Your task to perform on an android device: Search for asus zenbook on walmart.com, select the first entry, and add it to the cart. Image 0: 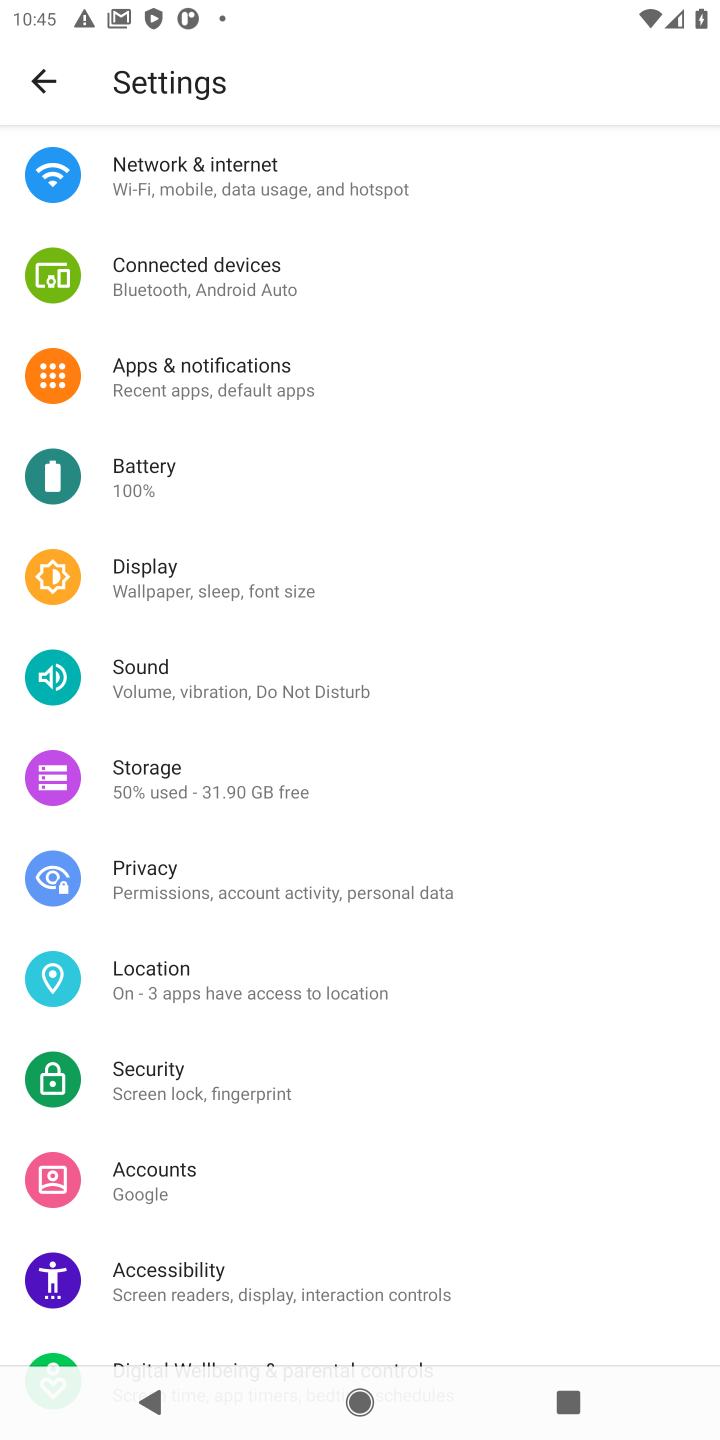
Step 0: press home button
Your task to perform on an android device: Search for asus zenbook on walmart.com, select the first entry, and add it to the cart. Image 1: 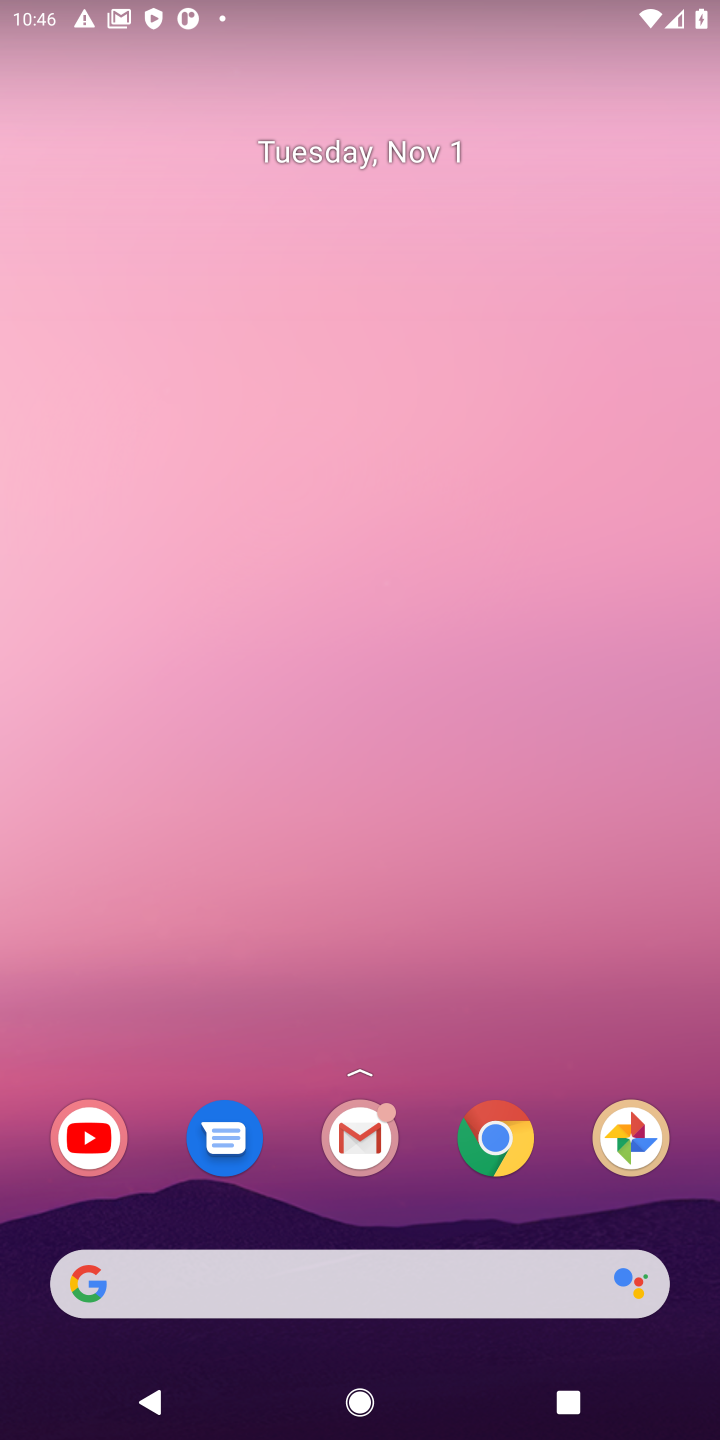
Step 1: click (492, 1136)
Your task to perform on an android device: Search for asus zenbook on walmart.com, select the first entry, and add it to the cart. Image 2: 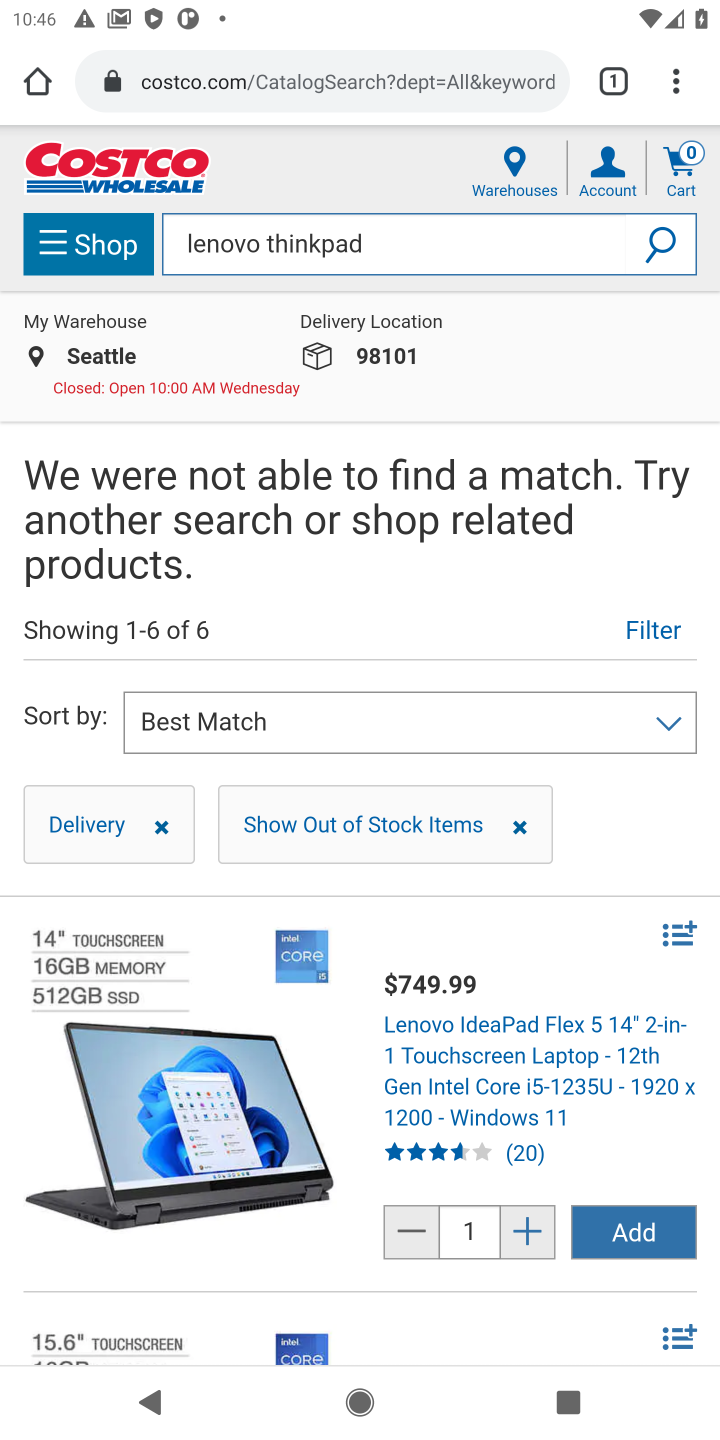
Step 2: click (239, 88)
Your task to perform on an android device: Search for asus zenbook on walmart.com, select the first entry, and add it to the cart. Image 3: 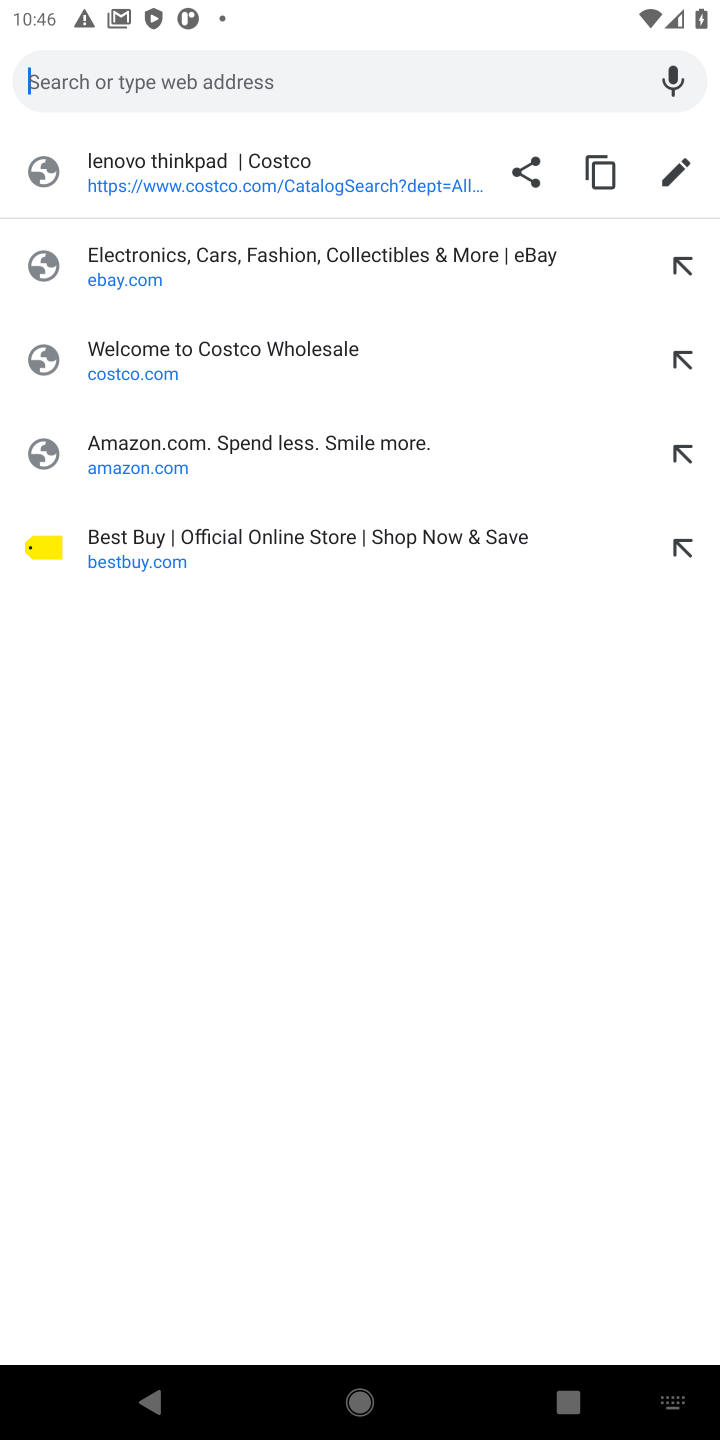
Step 3: type "walmart.com"
Your task to perform on an android device: Search for asus zenbook on walmart.com, select the first entry, and add it to the cart. Image 4: 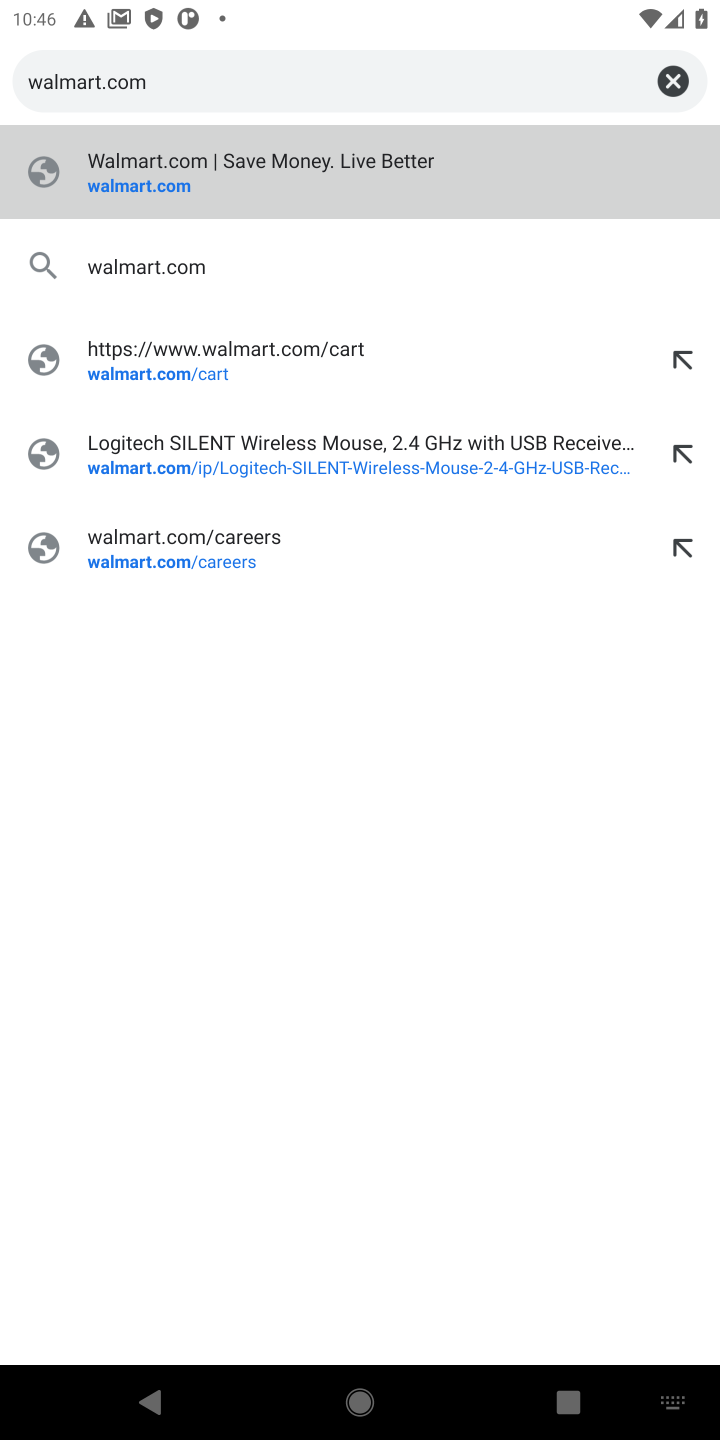
Step 4: click (126, 198)
Your task to perform on an android device: Search for asus zenbook on walmart.com, select the first entry, and add it to the cart. Image 5: 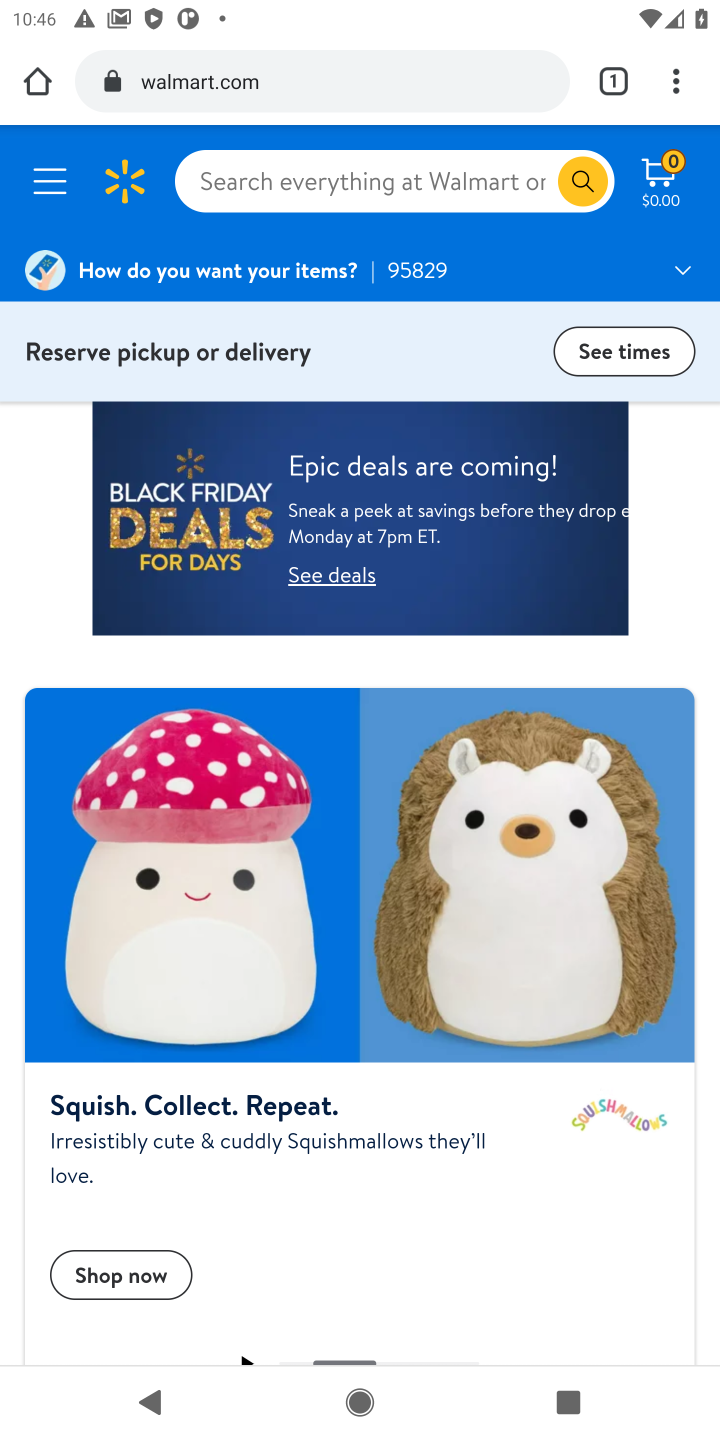
Step 5: click (310, 185)
Your task to perform on an android device: Search for asus zenbook on walmart.com, select the first entry, and add it to the cart. Image 6: 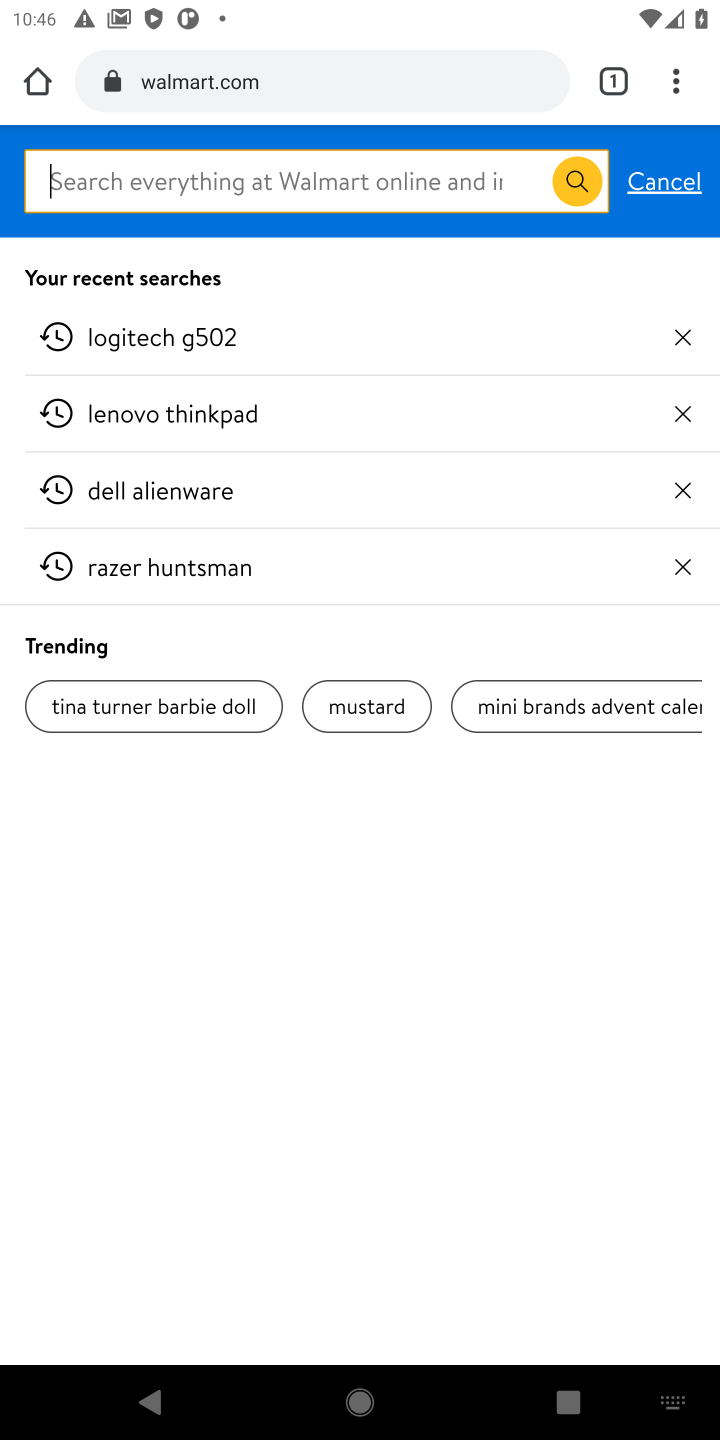
Step 6: type " asus zenbook"
Your task to perform on an android device: Search for asus zenbook on walmart.com, select the first entry, and add it to the cart. Image 7: 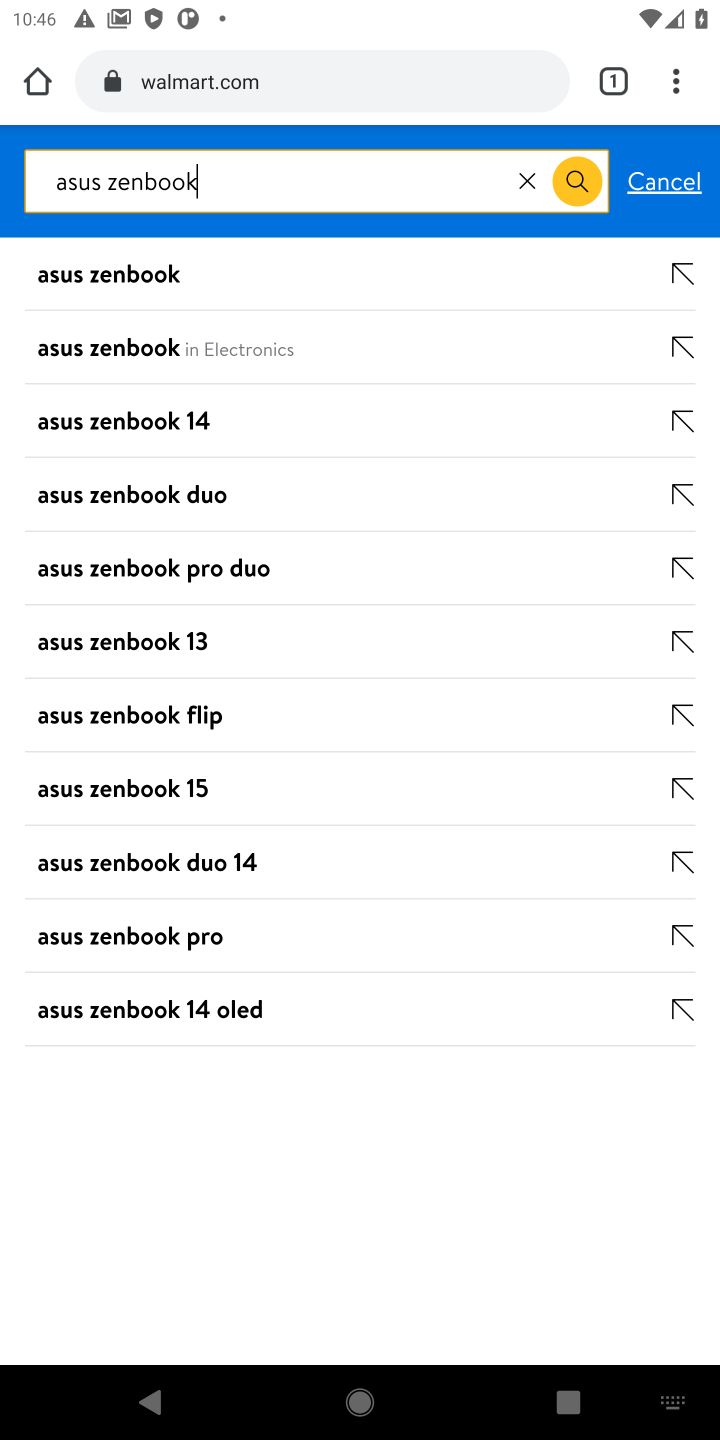
Step 7: click (125, 269)
Your task to perform on an android device: Search for asus zenbook on walmart.com, select the first entry, and add it to the cart. Image 8: 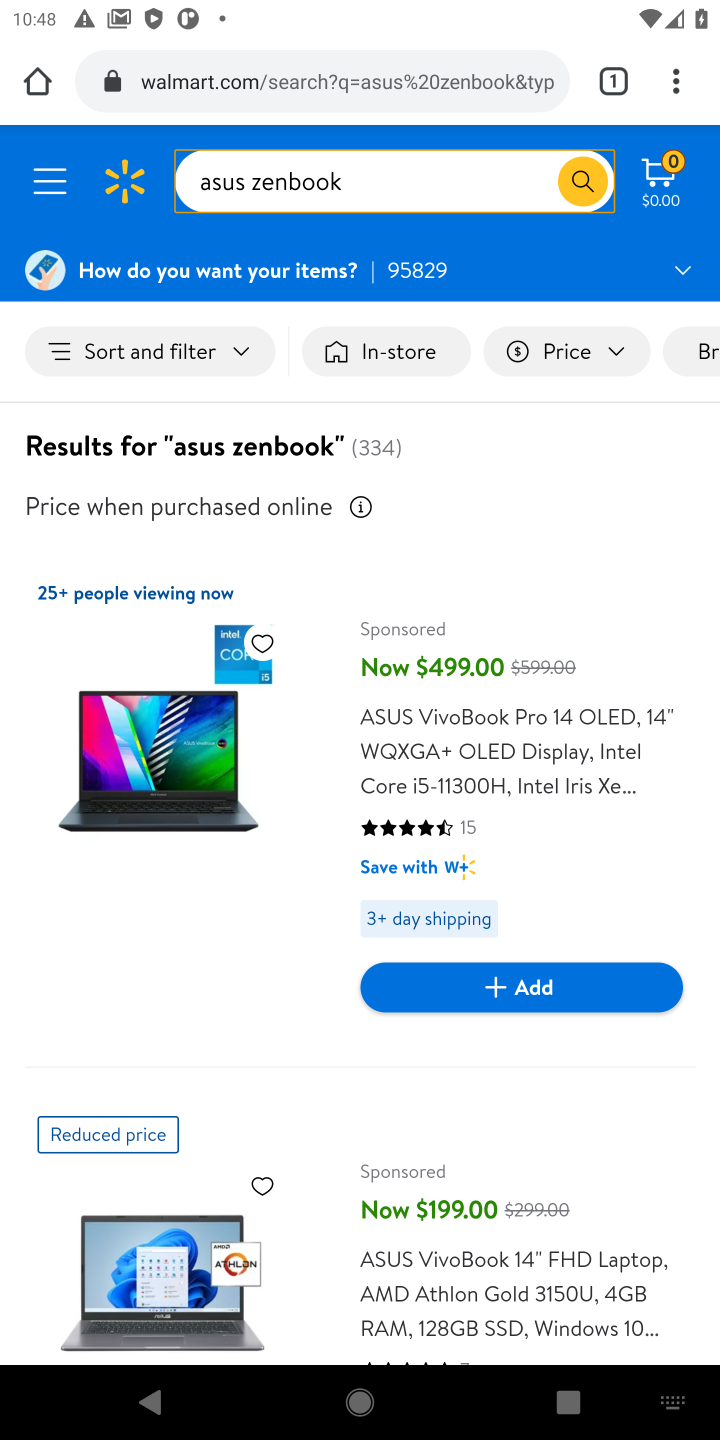
Step 8: task complete